Your task to perform on an android device: Go to sound settings Image 0: 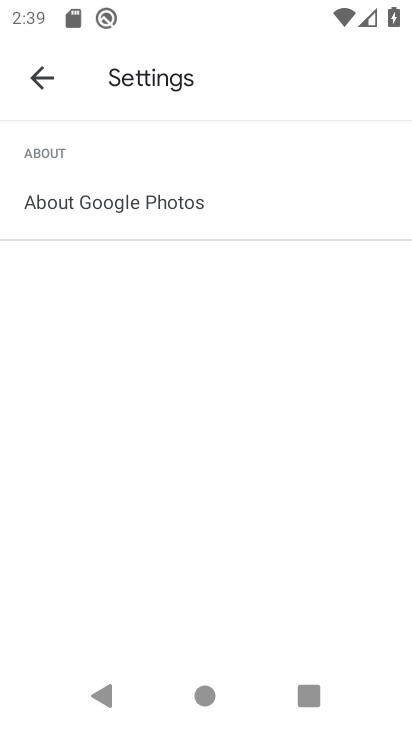
Step 0: press home button
Your task to perform on an android device: Go to sound settings Image 1: 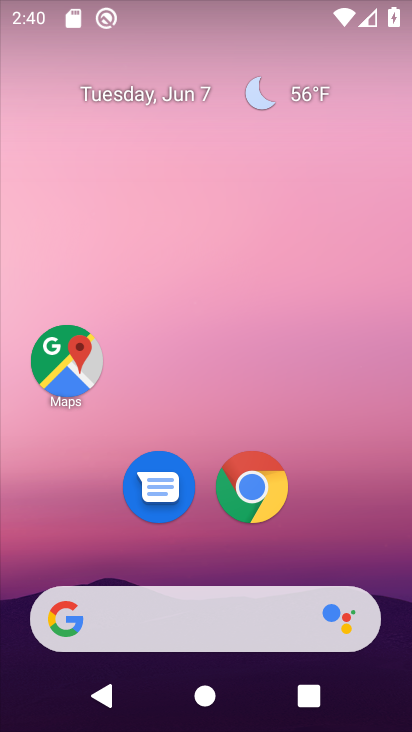
Step 1: drag from (397, 578) to (309, 192)
Your task to perform on an android device: Go to sound settings Image 2: 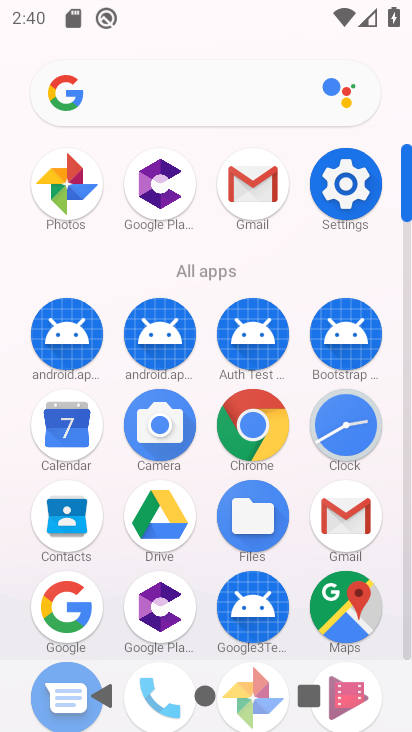
Step 2: click (357, 192)
Your task to perform on an android device: Go to sound settings Image 3: 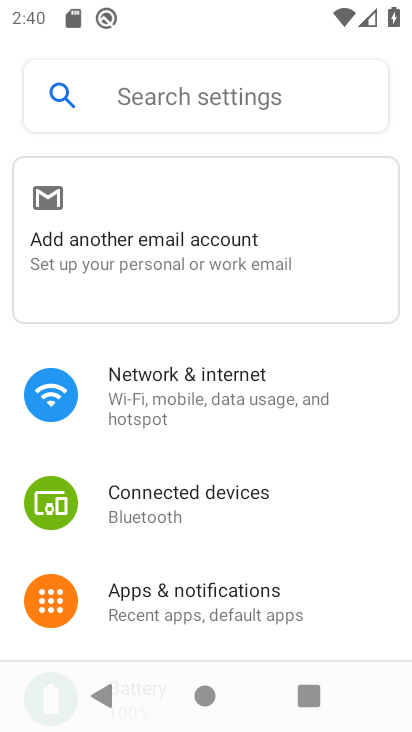
Step 3: drag from (284, 551) to (289, 22)
Your task to perform on an android device: Go to sound settings Image 4: 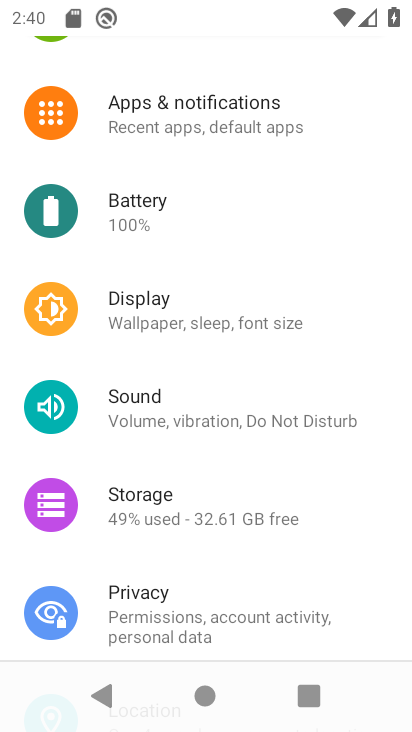
Step 4: click (277, 413)
Your task to perform on an android device: Go to sound settings Image 5: 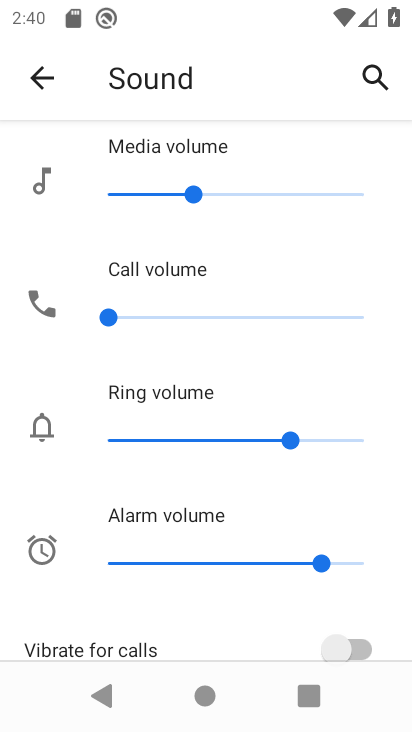
Step 5: task complete